Your task to perform on an android device: turn off airplane mode Image 0: 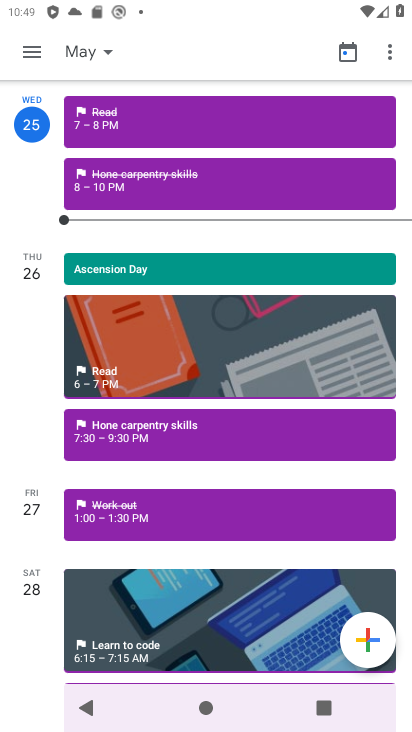
Step 0: press home button
Your task to perform on an android device: turn off airplane mode Image 1: 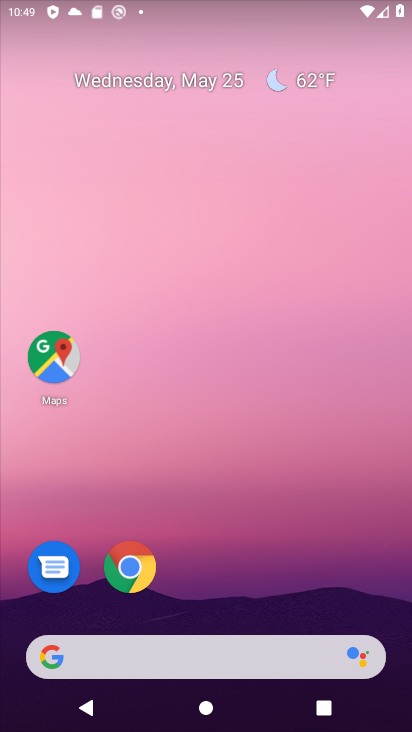
Step 1: task complete